Your task to perform on an android device: turn off priority inbox in the gmail app Image 0: 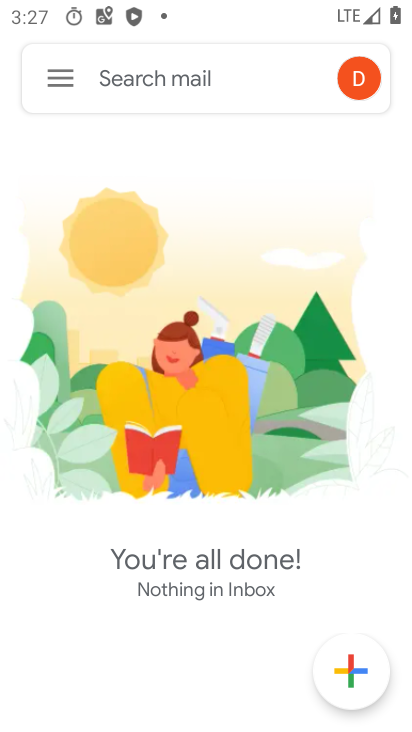
Step 0: press home button
Your task to perform on an android device: turn off priority inbox in the gmail app Image 1: 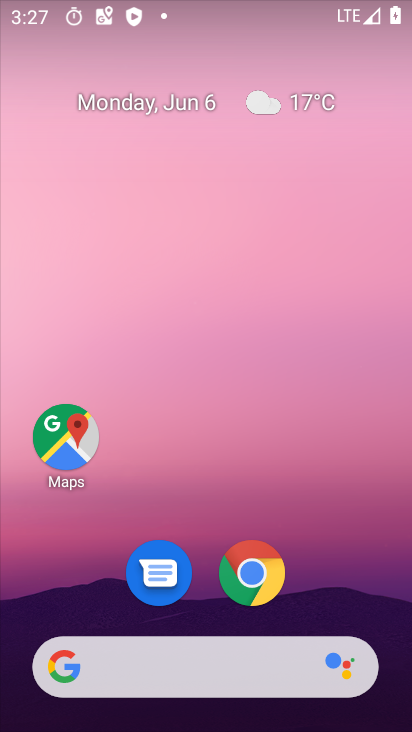
Step 1: drag from (362, 600) to (377, 239)
Your task to perform on an android device: turn off priority inbox in the gmail app Image 2: 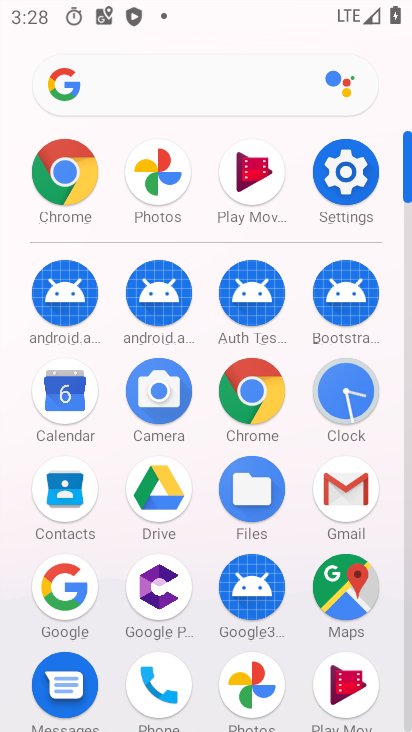
Step 2: click (360, 492)
Your task to perform on an android device: turn off priority inbox in the gmail app Image 3: 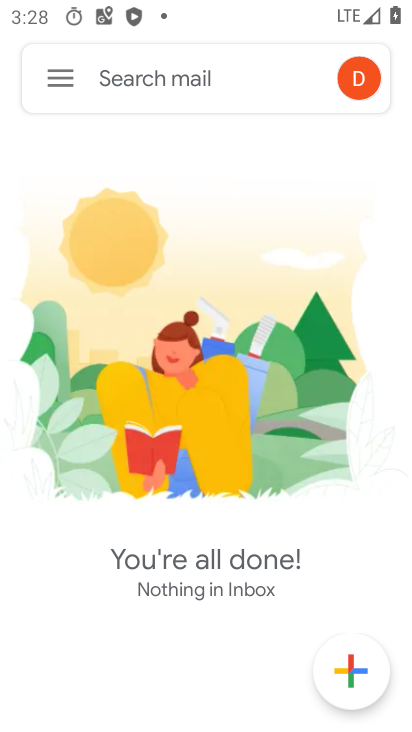
Step 3: click (62, 75)
Your task to perform on an android device: turn off priority inbox in the gmail app Image 4: 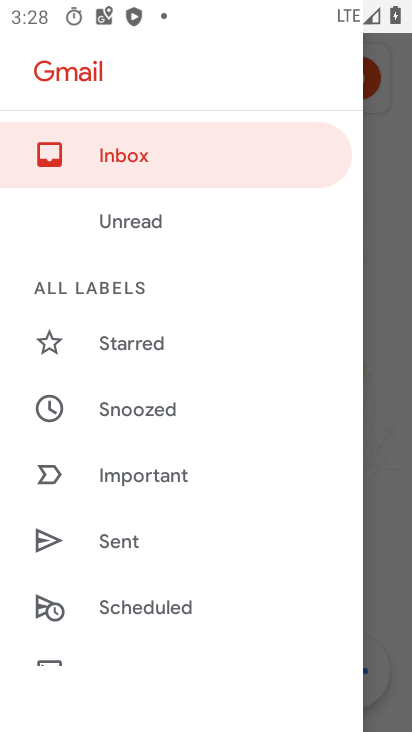
Step 4: drag from (277, 434) to (287, 364)
Your task to perform on an android device: turn off priority inbox in the gmail app Image 5: 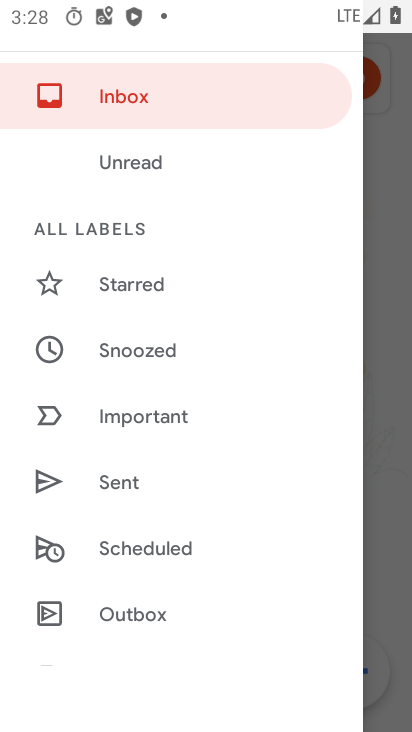
Step 5: drag from (284, 471) to (283, 361)
Your task to perform on an android device: turn off priority inbox in the gmail app Image 6: 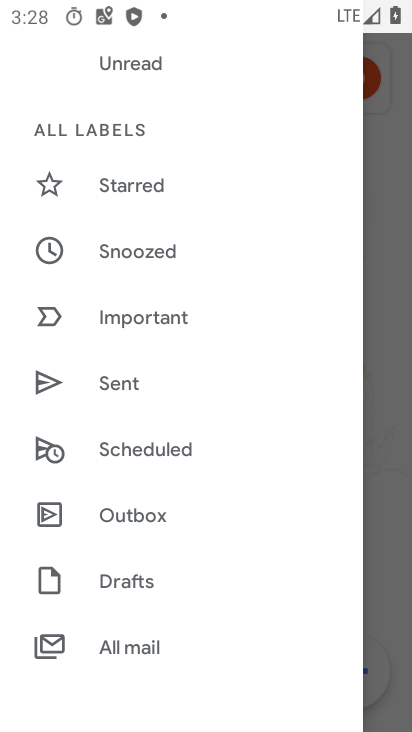
Step 6: drag from (276, 491) to (276, 392)
Your task to perform on an android device: turn off priority inbox in the gmail app Image 7: 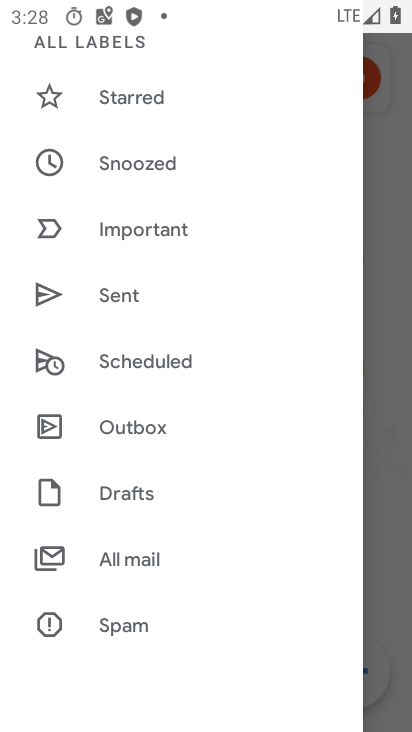
Step 7: drag from (271, 552) to (273, 469)
Your task to perform on an android device: turn off priority inbox in the gmail app Image 8: 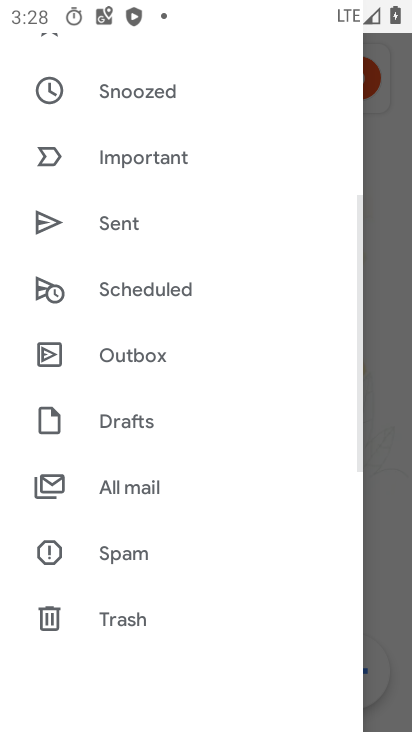
Step 8: drag from (257, 562) to (263, 439)
Your task to perform on an android device: turn off priority inbox in the gmail app Image 9: 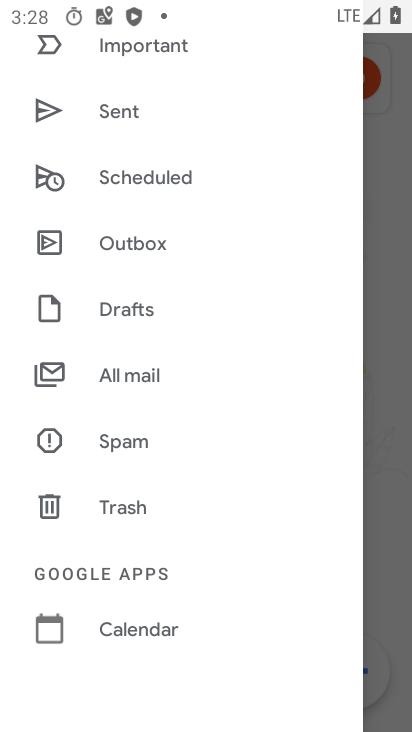
Step 9: drag from (265, 541) to (264, 412)
Your task to perform on an android device: turn off priority inbox in the gmail app Image 10: 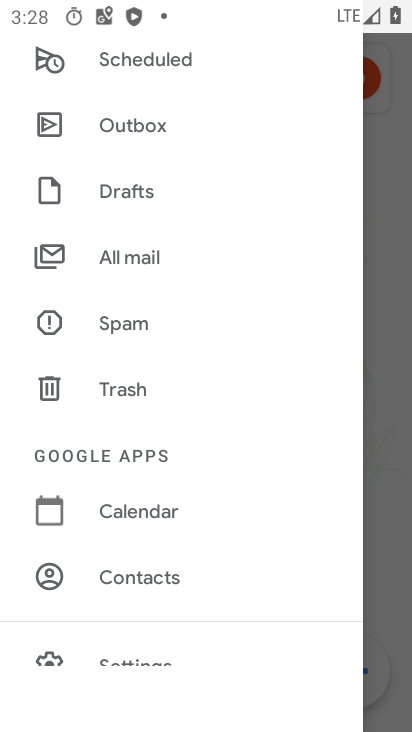
Step 10: drag from (238, 559) to (250, 414)
Your task to perform on an android device: turn off priority inbox in the gmail app Image 11: 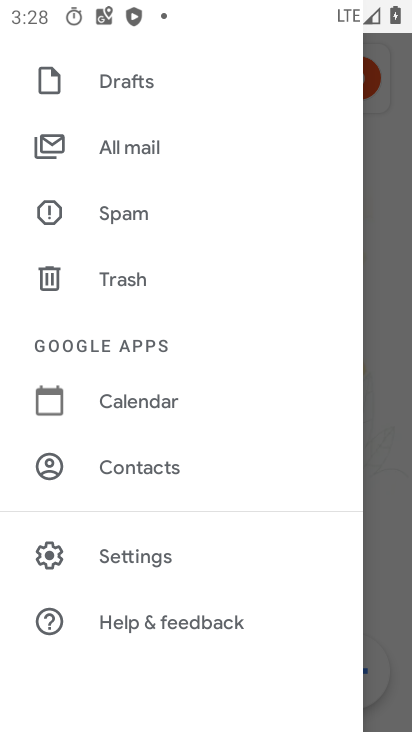
Step 11: click (181, 545)
Your task to perform on an android device: turn off priority inbox in the gmail app Image 12: 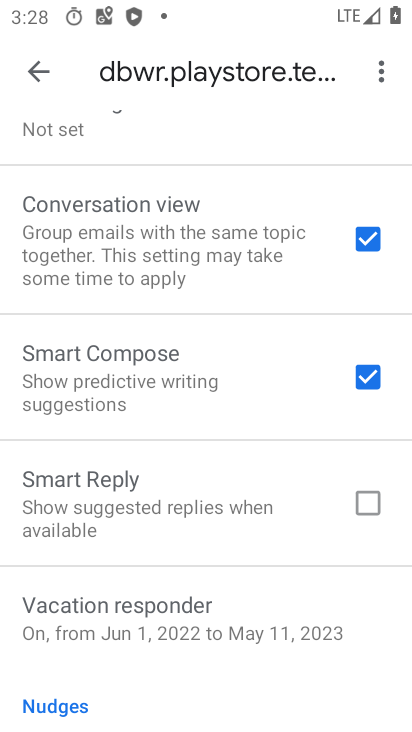
Step 12: drag from (265, 222) to (287, 381)
Your task to perform on an android device: turn off priority inbox in the gmail app Image 13: 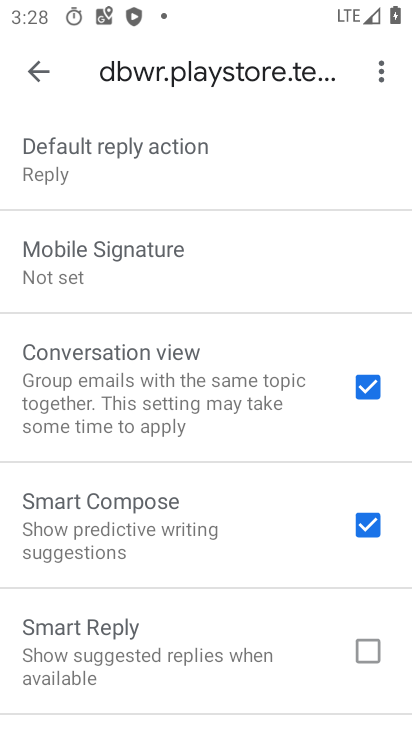
Step 13: drag from (277, 213) to (272, 432)
Your task to perform on an android device: turn off priority inbox in the gmail app Image 14: 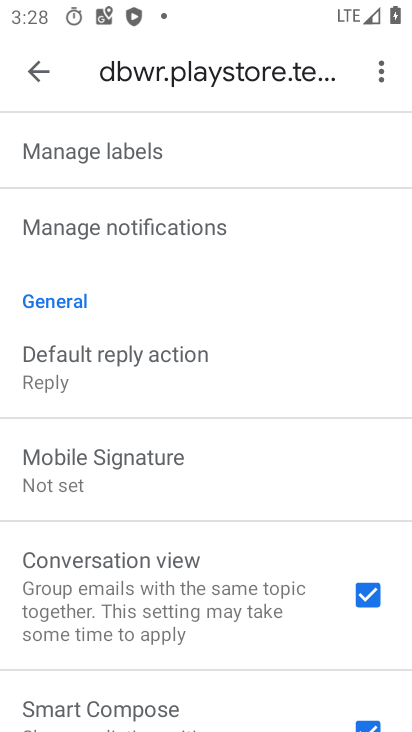
Step 14: drag from (264, 218) to (261, 439)
Your task to perform on an android device: turn off priority inbox in the gmail app Image 15: 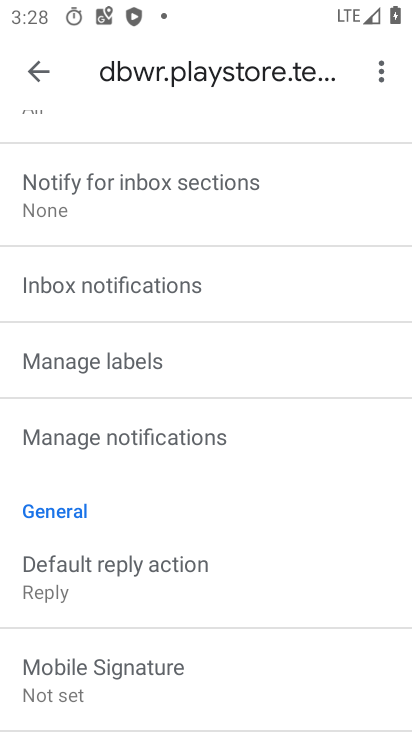
Step 15: drag from (259, 247) to (258, 441)
Your task to perform on an android device: turn off priority inbox in the gmail app Image 16: 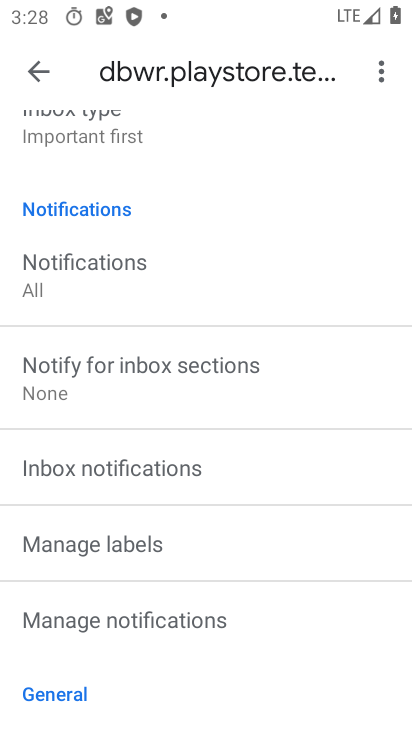
Step 16: drag from (229, 211) to (229, 419)
Your task to perform on an android device: turn off priority inbox in the gmail app Image 17: 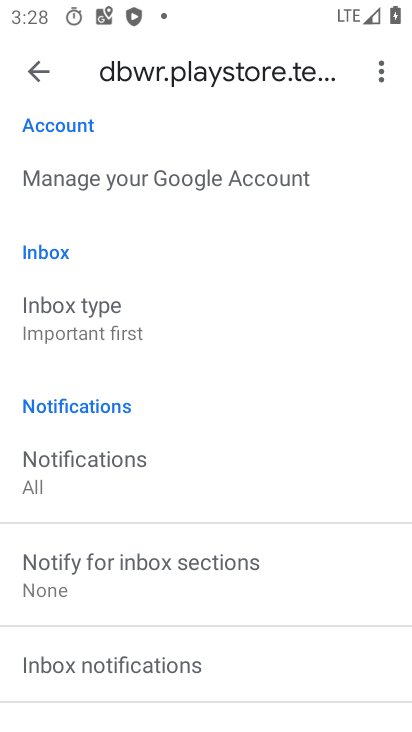
Step 17: click (122, 336)
Your task to perform on an android device: turn off priority inbox in the gmail app Image 18: 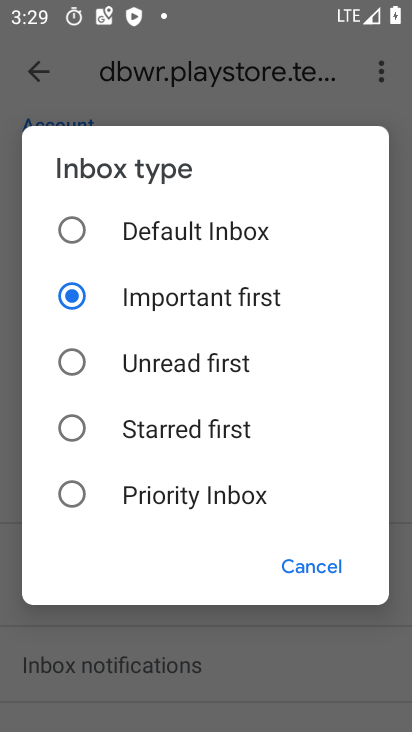
Step 18: task complete